Your task to perform on an android device: turn off priority inbox in the gmail app Image 0: 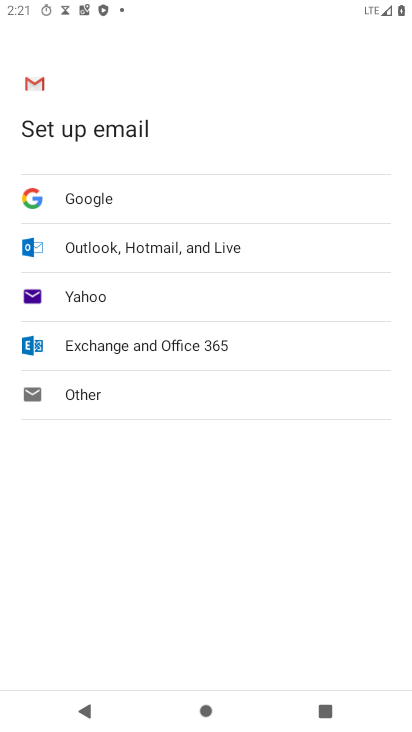
Step 0: press home button
Your task to perform on an android device: turn off priority inbox in the gmail app Image 1: 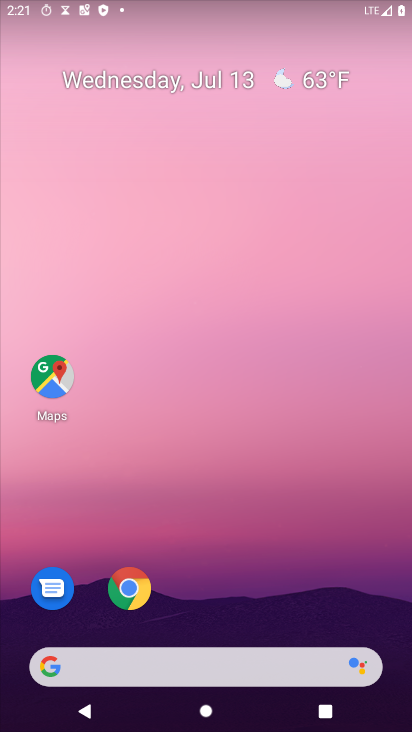
Step 1: drag from (235, 666) to (233, 301)
Your task to perform on an android device: turn off priority inbox in the gmail app Image 2: 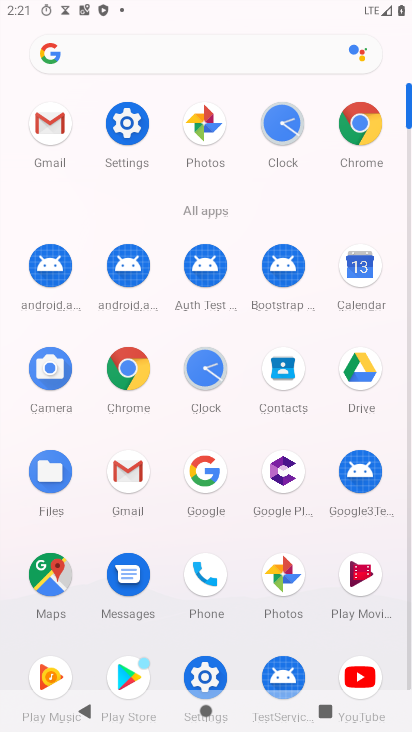
Step 2: click (125, 470)
Your task to perform on an android device: turn off priority inbox in the gmail app Image 3: 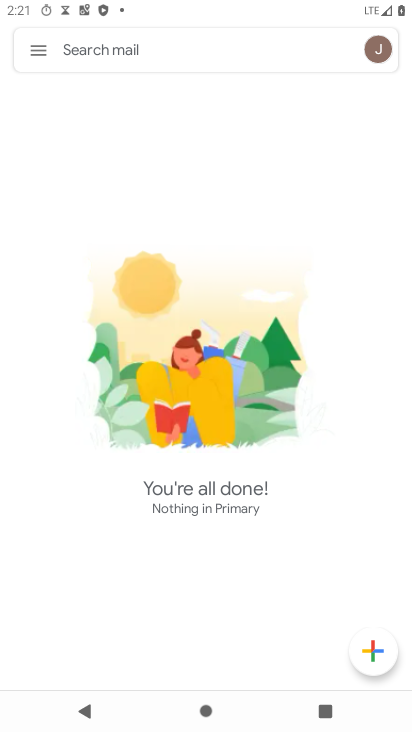
Step 3: click (45, 54)
Your task to perform on an android device: turn off priority inbox in the gmail app Image 4: 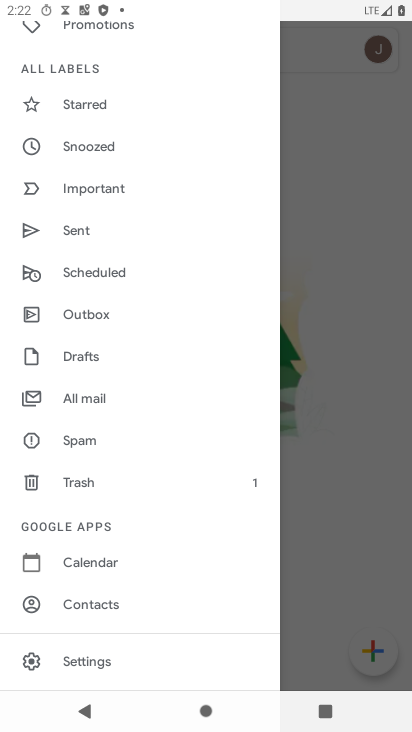
Step 4: click (81, 650)
Your task to perform on an android device: turn off priority inbox in the gmail app Image 5: 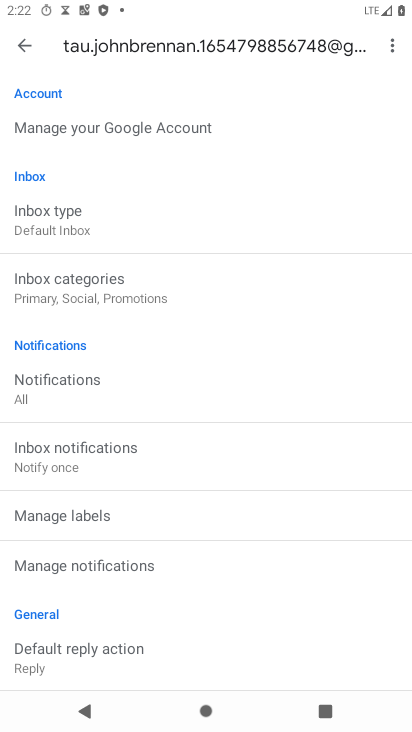
Step 5: click (77, 213)
Your task to perform on an android device: turn off priority inbox in the gmail app Image 6: 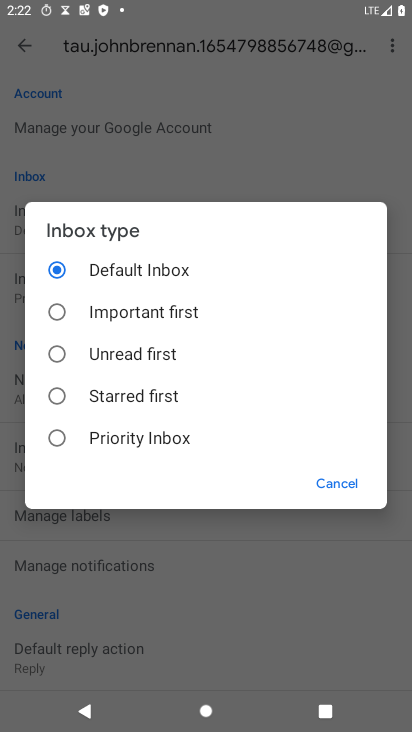
Step 6: click (135, 274)
Your task to perform on an android device: turn off priority inbox in the gmail app Image 7: 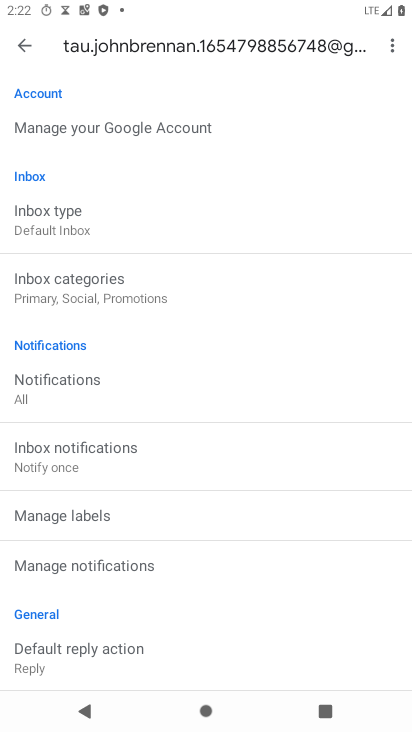
Step 7: task complete